Your task to perform on an android device: View the shopping cart on amazon. Search for "usb-c to usb-b" on amazon, select the first entry, add it to the cart, then select checkout. Image 0: 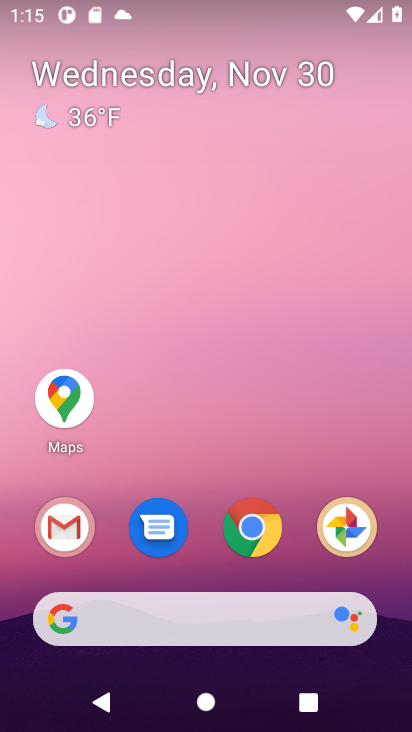
Step 0: click (262, 551)
Your task to perform on an android device: View the shopping cart on amazon. Search for "usb-c to usb-b" on amazon, select the first entry, add it to the cart, then select checkout. Image 1: 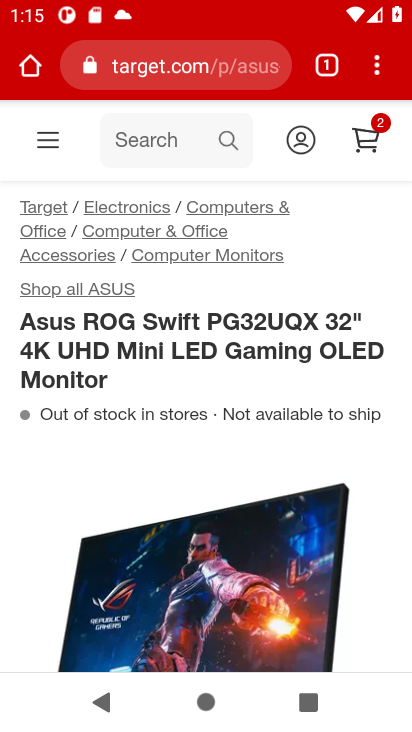
Step 1: press home button
Your task to perform on an android device: View the shopping cart on amazon. Search for "usb-c to usb-b" on amazon, select the first entry, add it to the cart, then select checkout. Image 2: 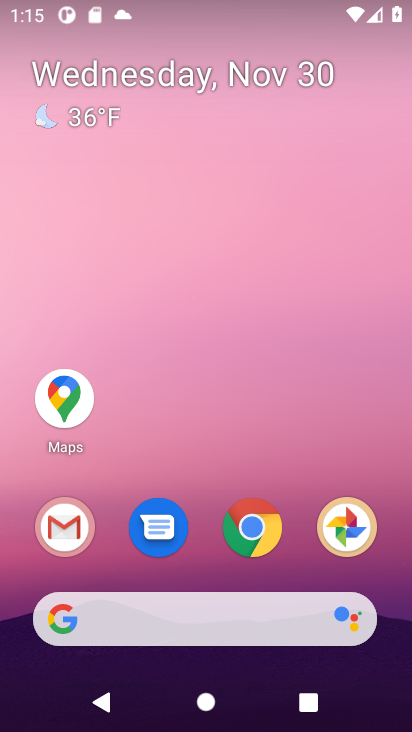
Step 2: click (240, 540)
Your task to perform on an android device: View the shopping cart on amazon. Search for "usb-c to usb-b" on amazon, select the first entry, add it to the cart, then select checkout. Image 3: 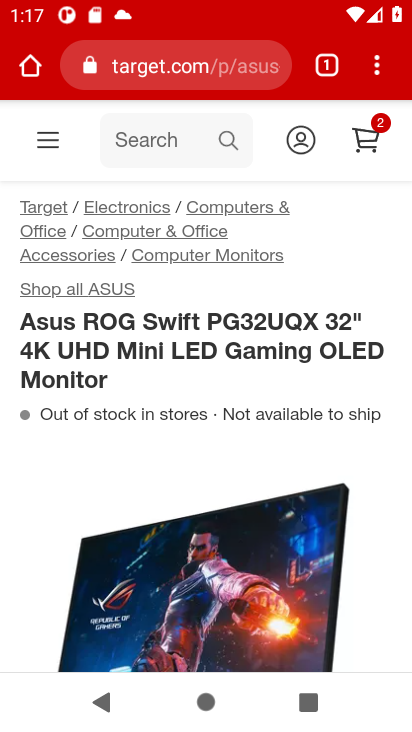
Step 3: task complete